Your task to perform on an android device: set default search engine in the chrome app Image 0: 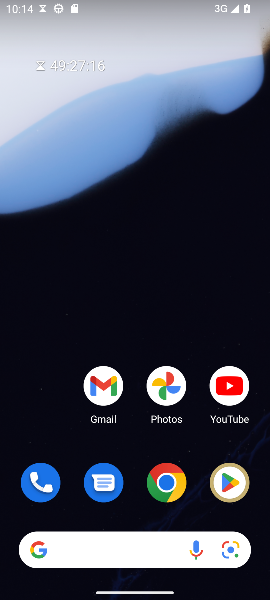
Step 0: drag from (106, 469) to (97, 43)
Your task to perform on an android device: set default search engine in the chrome app Image 1: 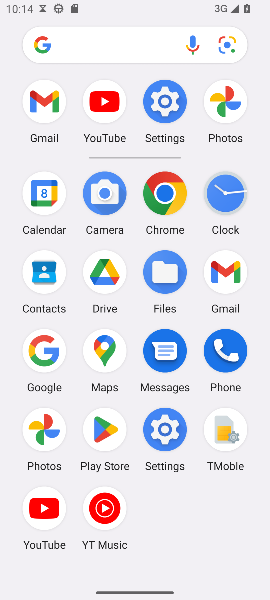
Step 1: click (155, 186)
Your task to perform on an android device: set default search engine in the chrome app Image 2: 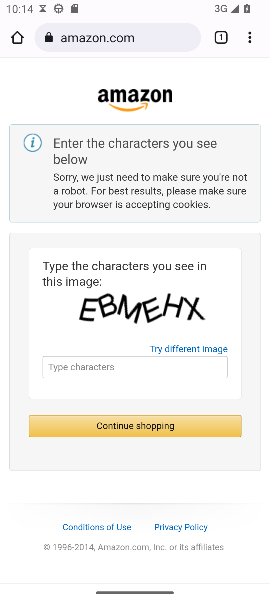
Step 2: drag from (245, 39) to (151, 530)
Your task to perform on an android device: set default search engine in the chrome app Image 3: 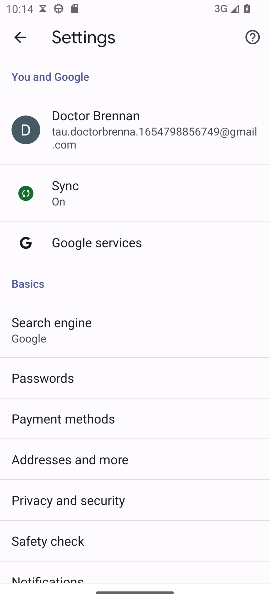
Step 3: click (61, 328)
Your task to perform on an android device: set default search engine in the chrome app Image 4: 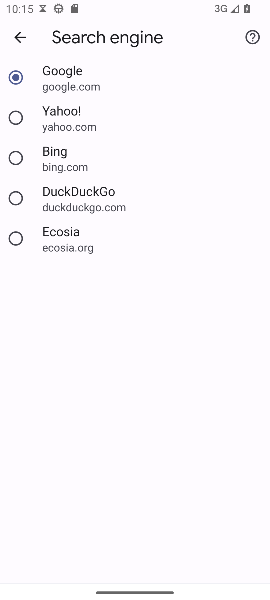
Step 4: task complete